Your task to perform on an android device: check data usage Image 0: 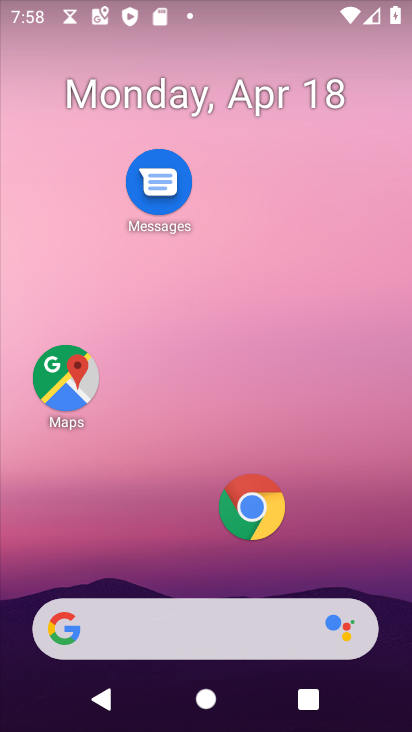
Step 0: drag from (235, 592) to (198, 97)
Your task to perform on an android device: check data usage Image 1: 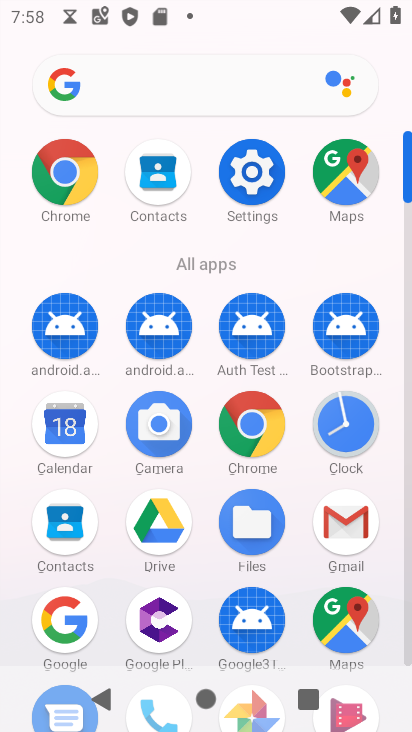
Step 1: click (236, 168)
Your task to perform on an android device: check data usage Image 2: 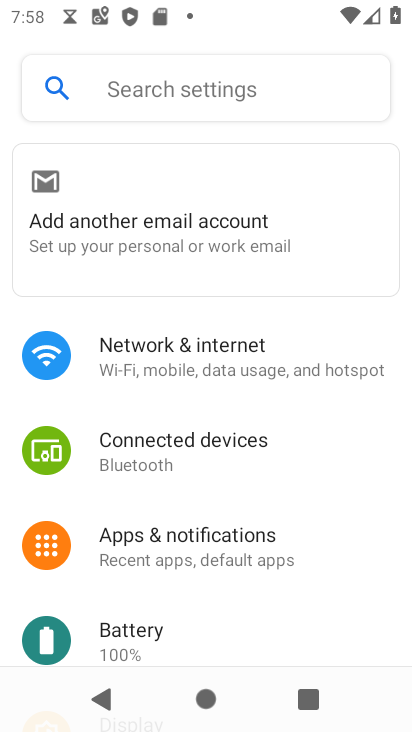
Step 2: click (249, 352)
Your task to perform on an android device: check data usage Image 3: 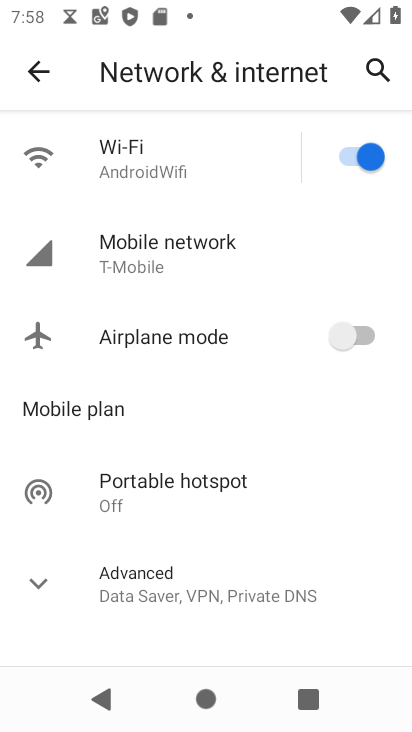
Step 3: click (182, 251)
Your task to perform on an android device: check data usage Image 4: 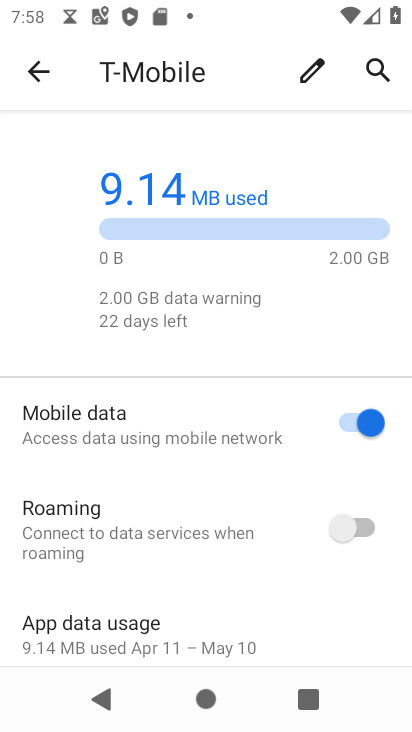
Step 4: task complete